Your task to perform on an android device: Open Yahoo.com Image 0: 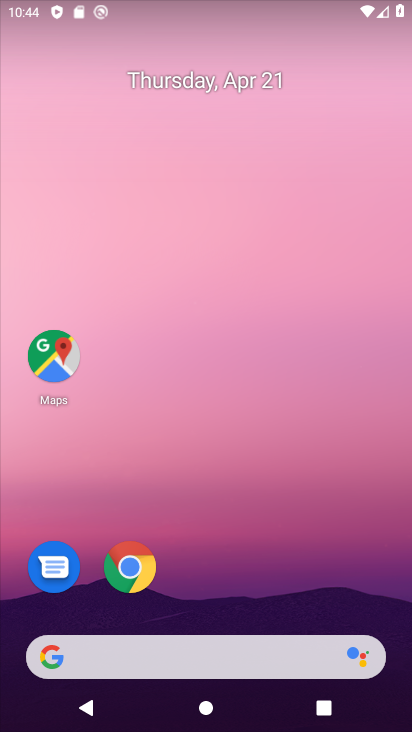
Step 0: click (139, 563)
Your task to perform on an android device: Open Yahoo.com Image 1: 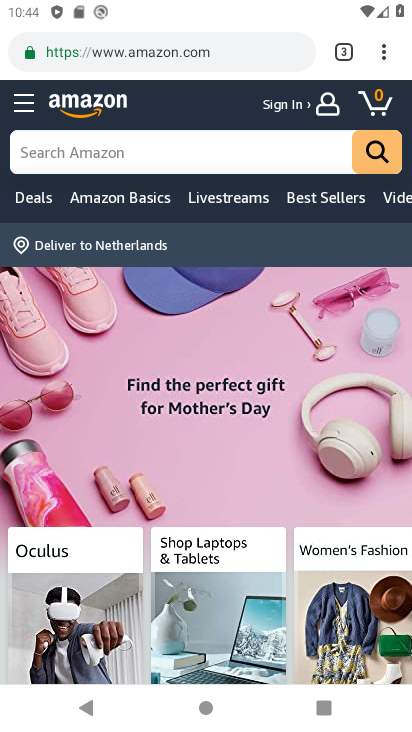
Step 1: click (201, 49)
Your task to perform on an android device: Open Yahoo.com Image 2: 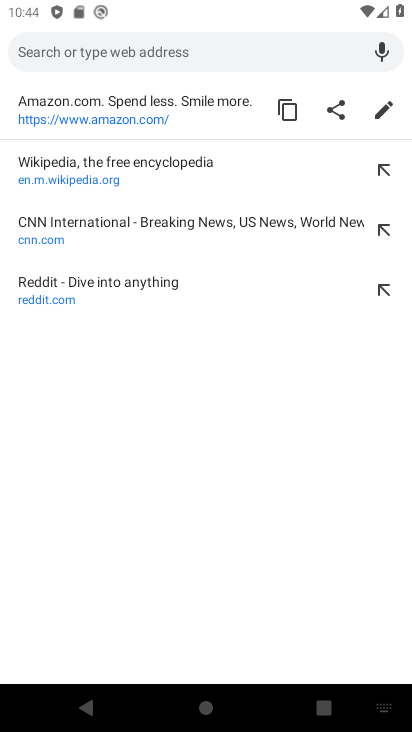
Step 2: type "yahoo.com"
Your task to perform on an android device: Open Yahoo.com Image 3: 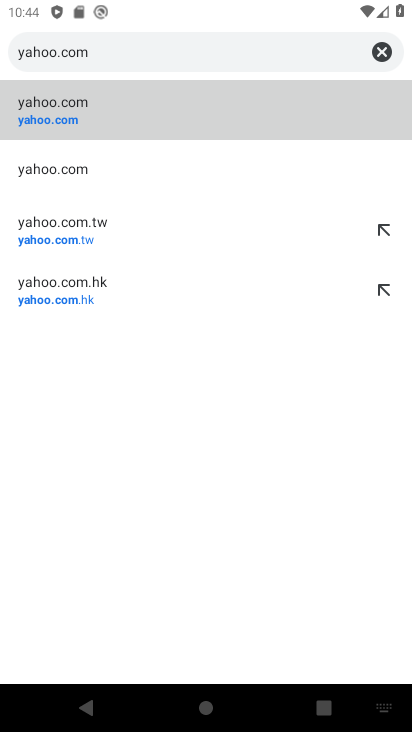
Step 3: click (35, 103)
Your task to perform on an android device: Open Yahoo.com Image 4: 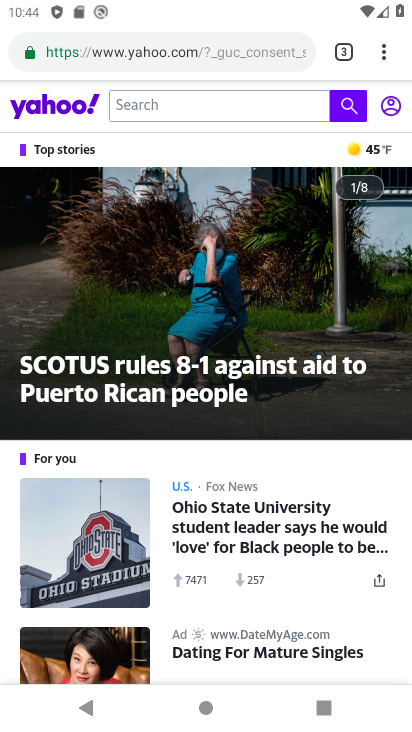
Step 4: task complete